Your task to perform on an android device: add a contact Image 0: 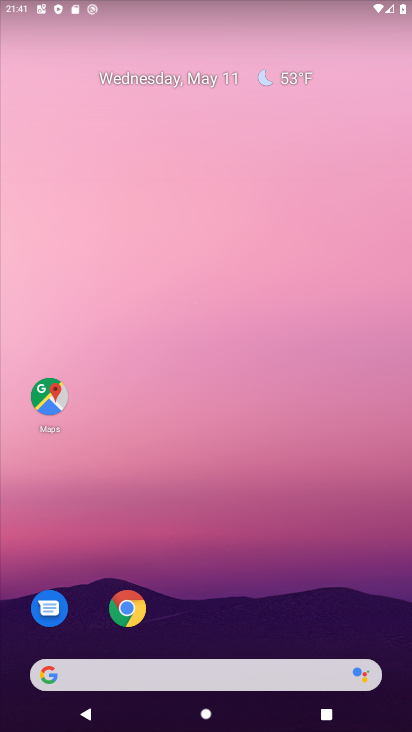
Step 0: drag from (260, 594) to (274, 222)
Your task to perform on an android device: add a contact Image 1: 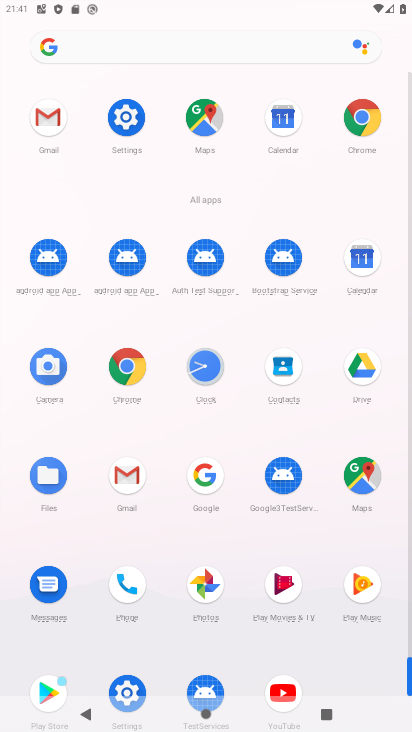
Step 1: click (295, 372)
Your task to perform on an android device: add a contact Image 2: 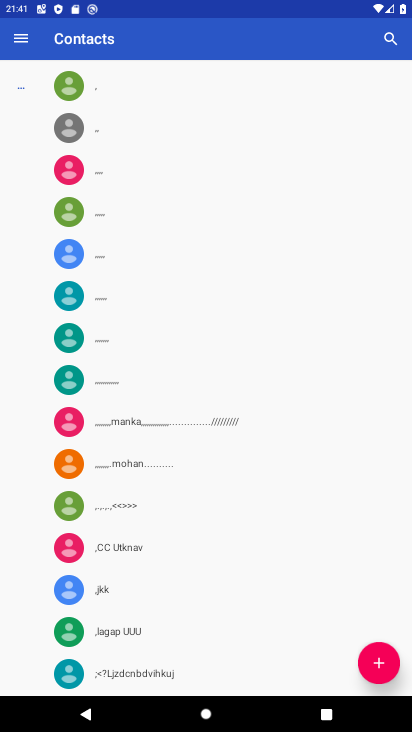
Step 2: click (373, 636)
Your task to perform on an android device: add a contact Image 3: 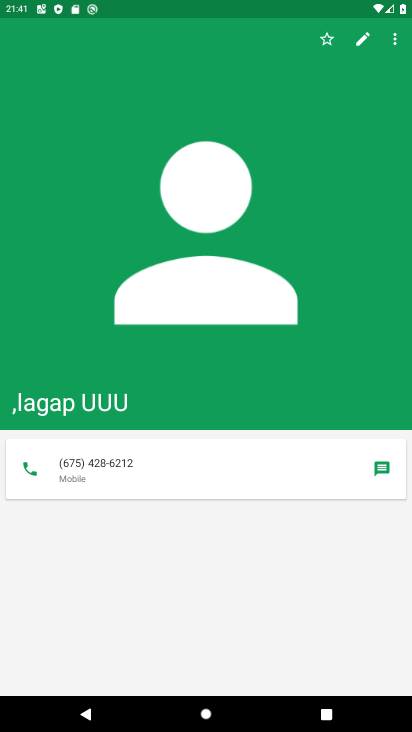
Step 3: press back button
Your task to perform on an android device: add a contact Image 4: 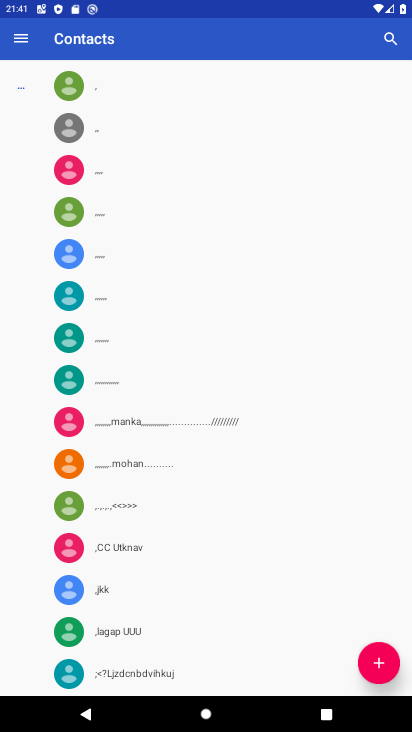
Step 4: click (382, 662)
Your task to perform on an android device: add a contact Image 5: 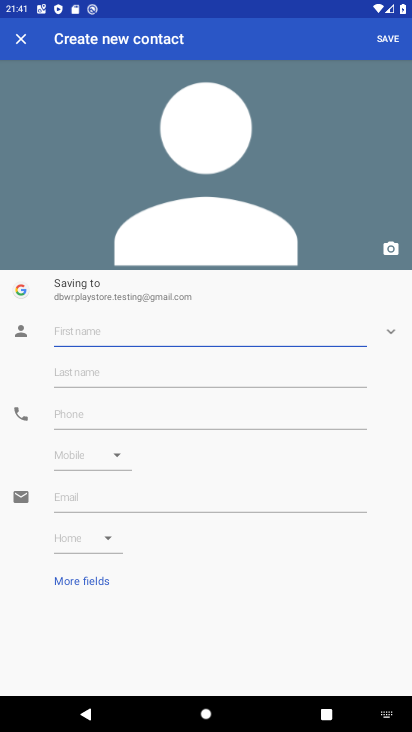
Step 5: type "Jaggu"
Your task to perform on an android device: add a contact Image 6: 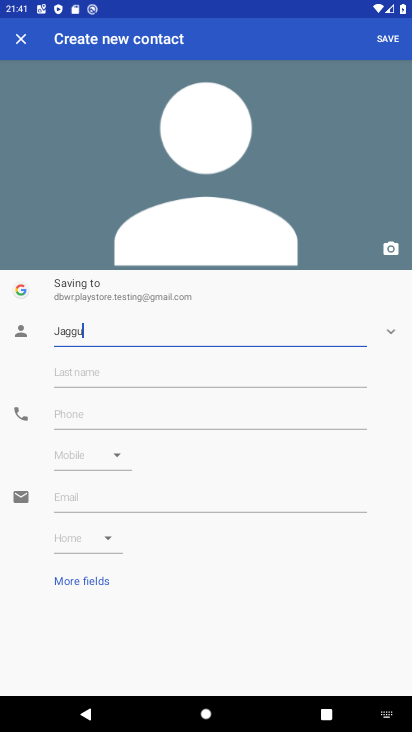
Step 6: click (168, 416)
Your task to perform on an android device: add a contact Image 7: 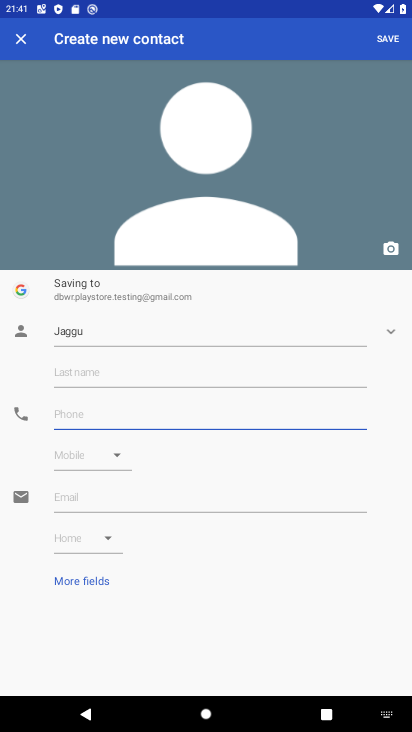
Step 7: type "987654321"
Your task to perform on an android device: add a contact Image 8: 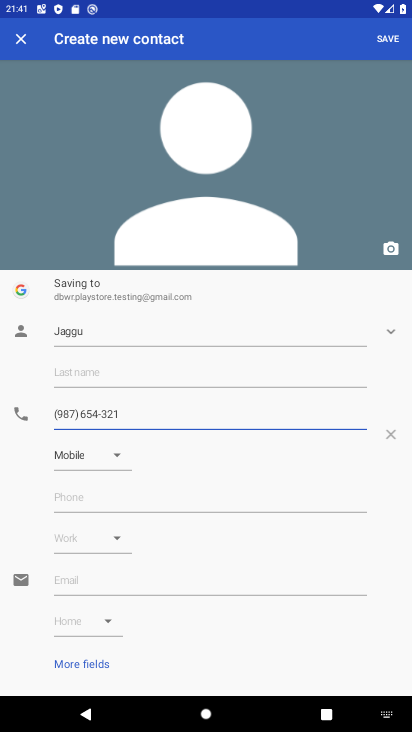
Step 8: click (391, 39)
Your task to perform on an android device: add a contact Image 9: 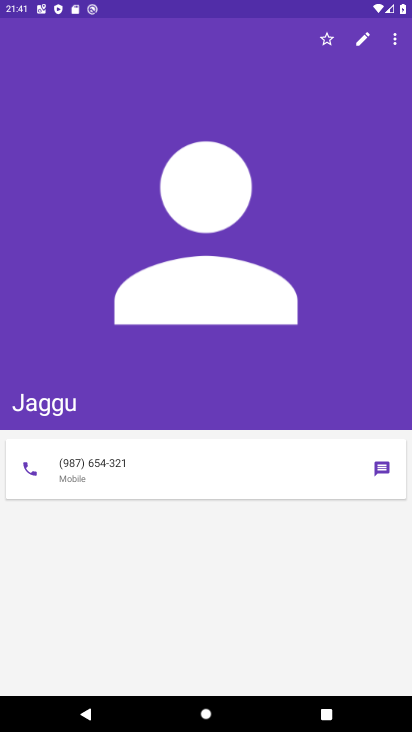
Step 9: task complete